Your task to perform on an android device: Open maps Image 0: 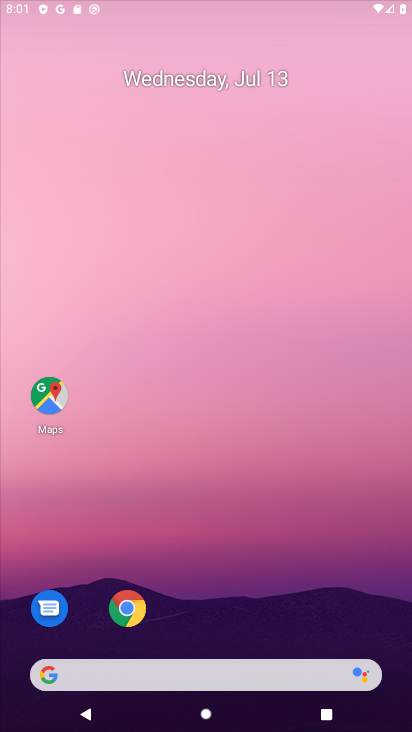
Step 0: drag from (234, 629) to (176, 361)
Your task to perform on an android device: Open maps Image 1: 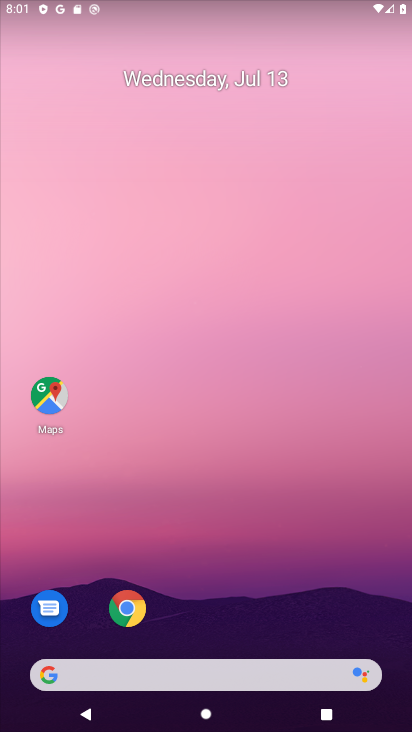
Step 1: drag from (215, 651) to (149, 229)
Your task to perform on an android device: Open maps Image 2: 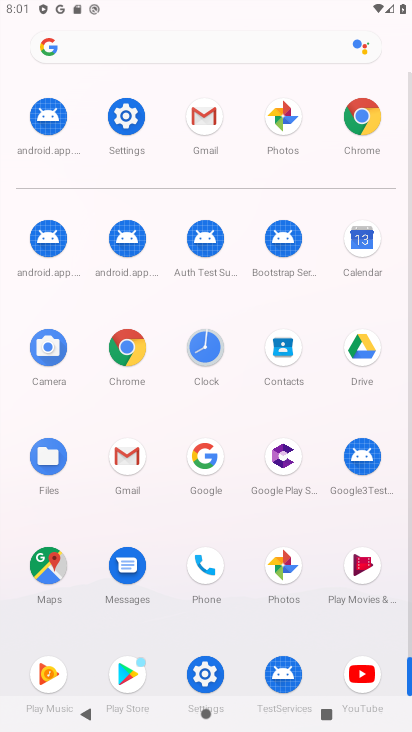
Step 2: click (56, 551)
Your task to perform on an android device: Open maps Image 3: 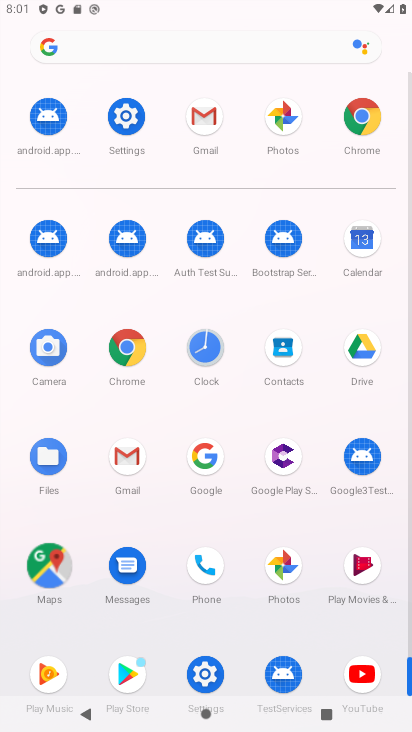
Step 3: click (56, 551)
Your task to perform on an android device: Open maps Image 4: 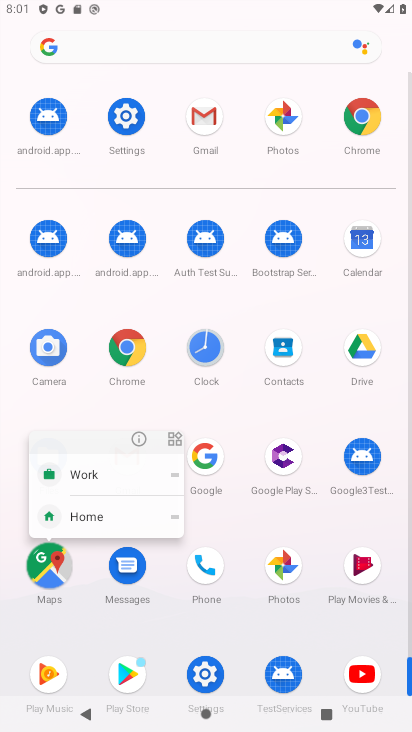
Step 4: click (56, 551)
Your task to perform on an android device: Open maps Image 5: 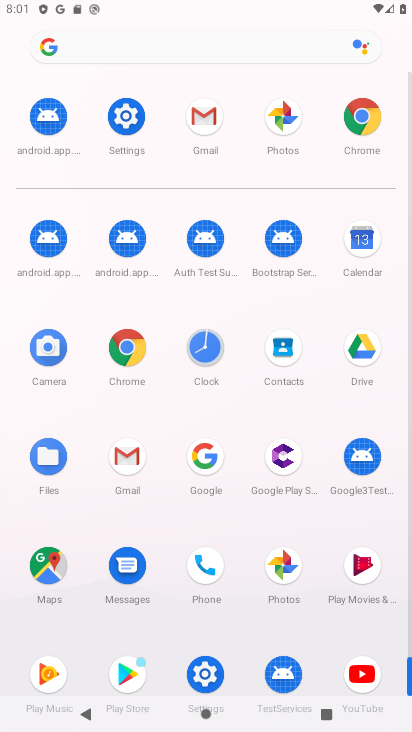
Step 5: click (35, 559)
Your task to perform on an android device: Open maps Image 6: 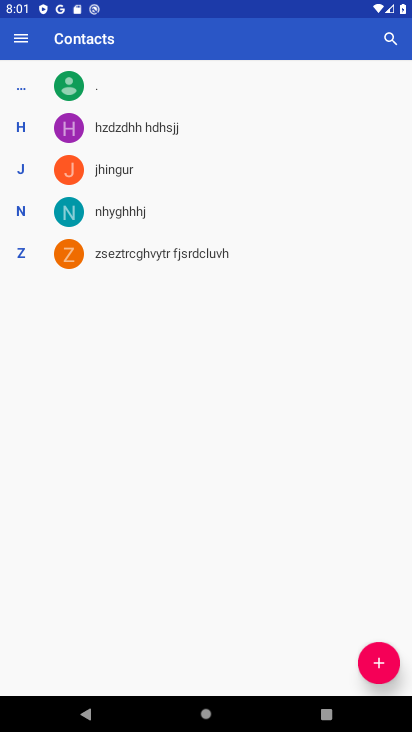
Step 6: press back button
Your task to perform on an android device: Open maps Image 7: 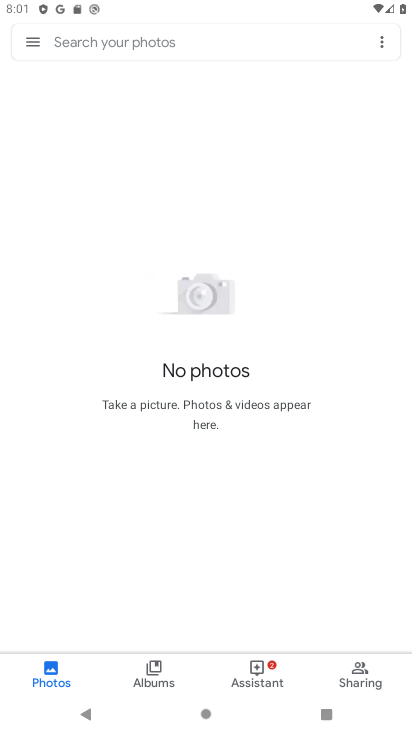
Step 7: press home button
Your task to perform on an android device: Open maps Image 8: 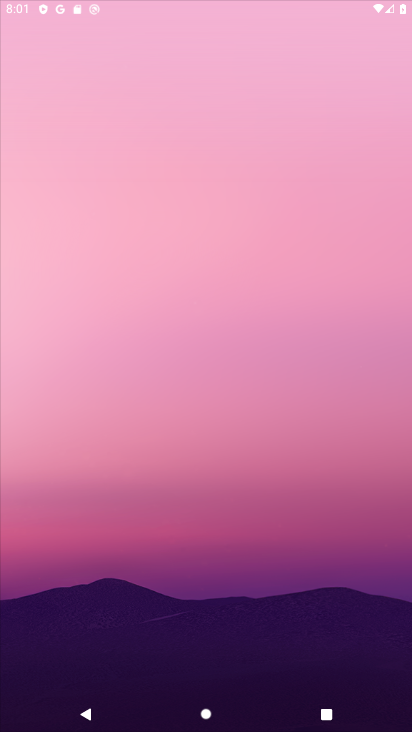
Step 8: drag from (294, 661) to (254, 154)
Your task to perform on an android device: Open maps Image 9: 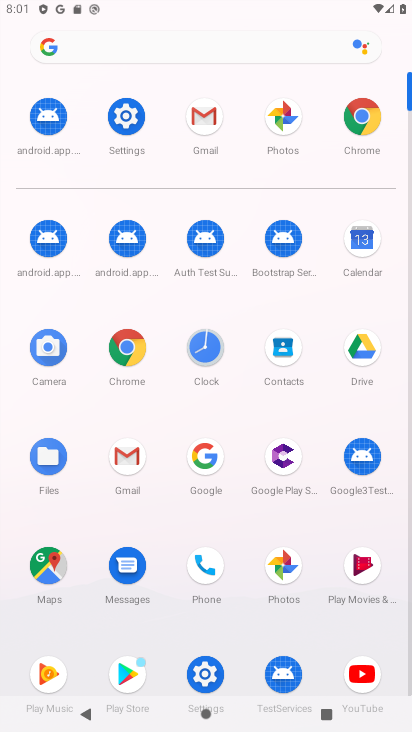
Step 9: click (58, 572)
Your task to perform on an android device: Open maps Image 10: 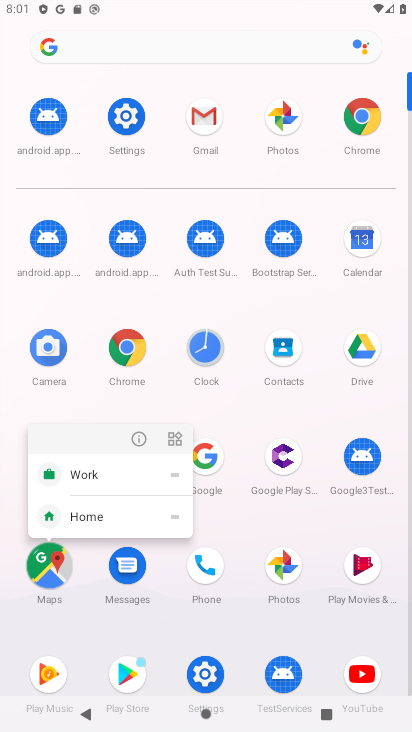
Step 10: click (57, 568)
Your task to perform on an android device: Open maps Image 11: 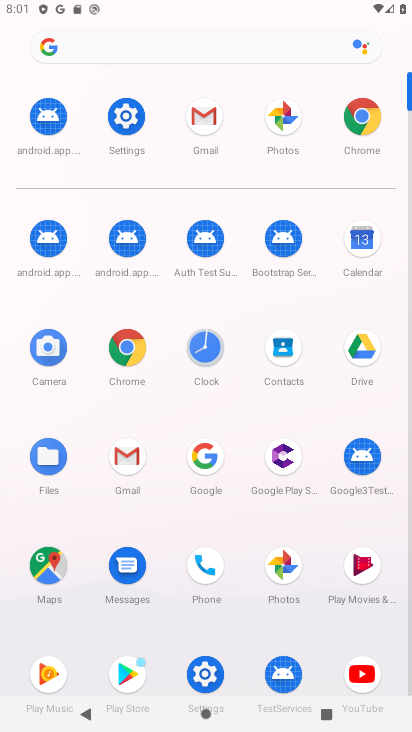
Step 11: click (57, 566)
Your task to perform on an android device: Open maps Image 12: 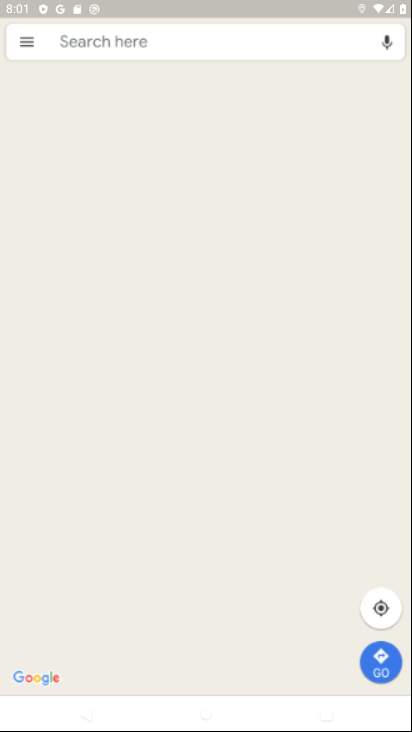
Step 12: click (49, 557)
Your task to perform on an android device: Open maps Image 13: 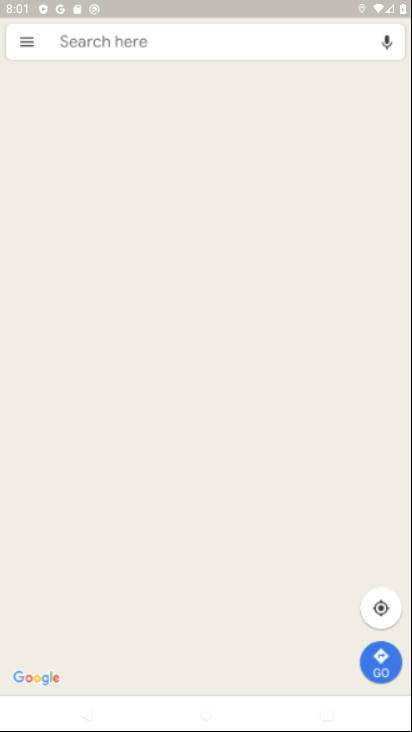
Step 13: click (50, 557)
Your task to perform on an android device: Open maps Image 14: 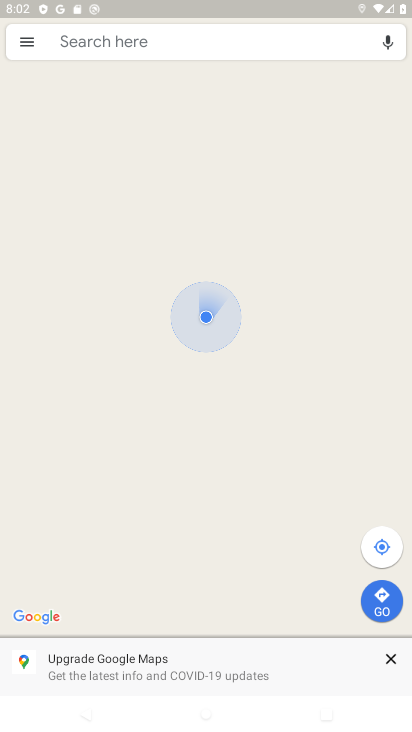
Step 14: task complete